Your task to perform on an android device: turn pop-ups on in chrome Image 0: 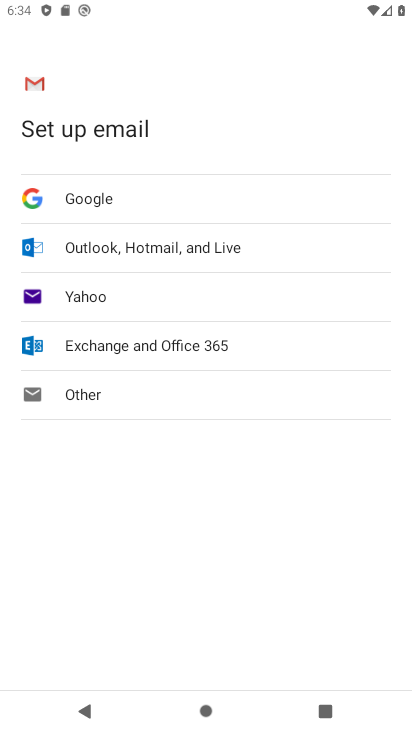
Step 0: press home button
Your task to perform on an android device: turn pop-ups on in chrome Image 1: 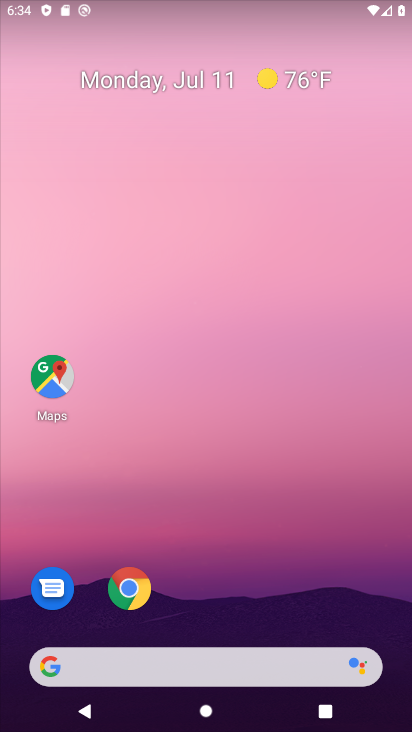
Step 1: click (131, 588)
Your task to perform on an android device: turn pop-ups on in chrome Image 2: 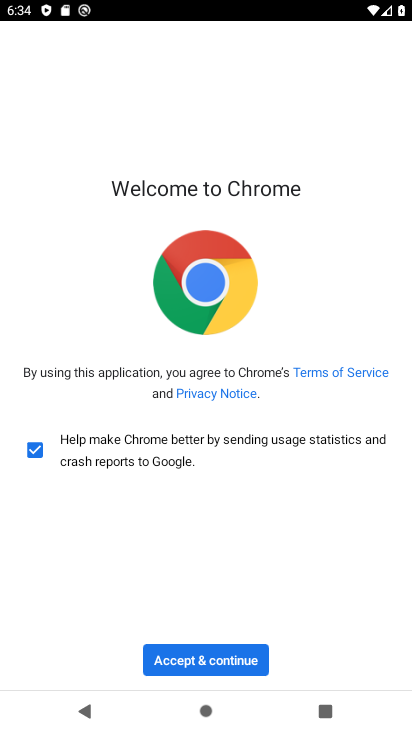
Step 2: click (202, 655)
Your task to perform on an android device: turn pop-ups on in chrome Image 3: 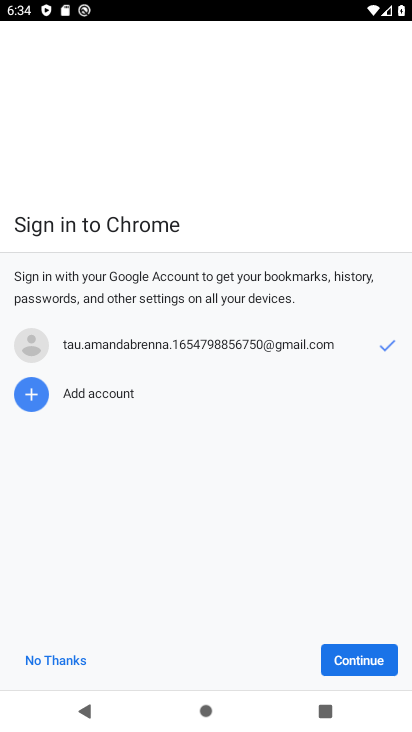
Step 3: click (342, 668)
Your task to perform on an android device: turn pop-ups on in chrome Image 4: 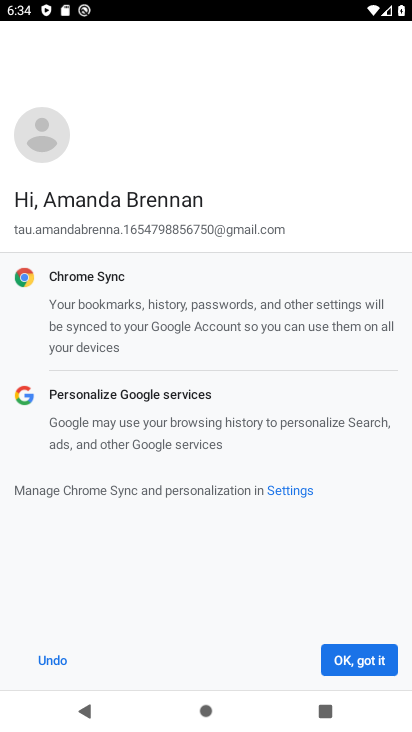
Step 4: click (342, 668)
Your task to perform on an android device: turn pop-ups on in chrome Image 5: 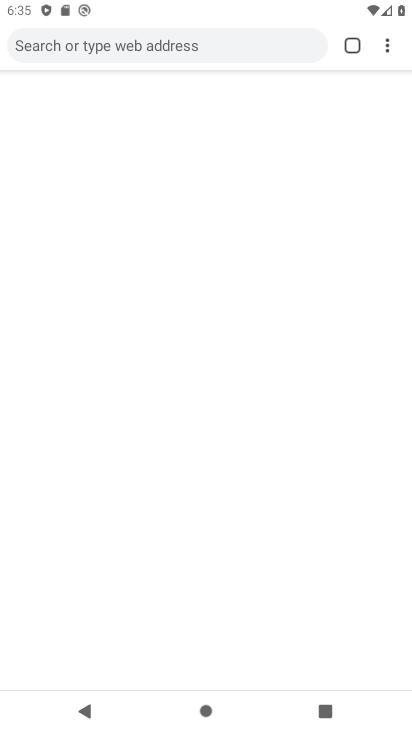
Step 5: click (387, 43)
Your task to perform on an android device: turn pop-ups on in chrome Image 6: 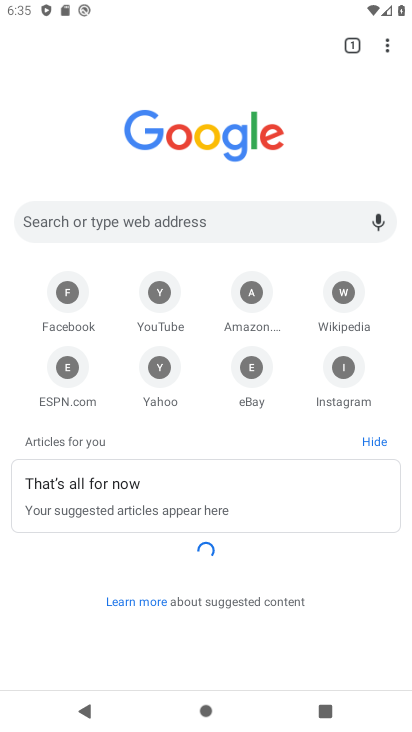
Step 6: click (388, 46)
Your task to perform on an android device: turn pop-ups on in chrome Image 7: 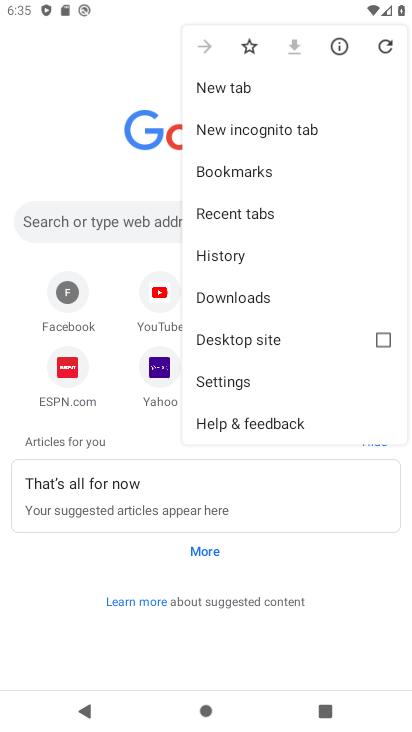
Step 7: click (233, 378)
Your task to perform on an android device: turn pop-ups on in chrome Image 8: 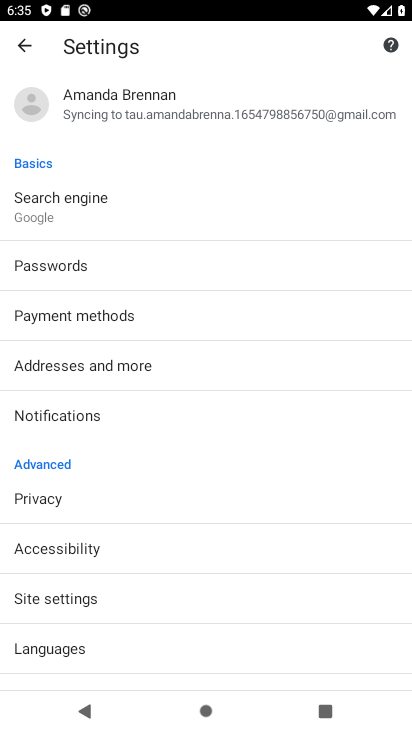
Step 8: click (84, 590)
Your task to perform on an android device: turn pop-ups on in chrome Image 9: 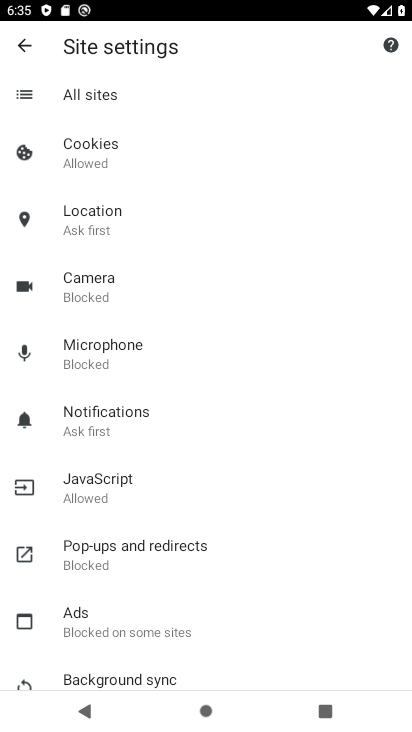
Step 9: click (102, 552)
Your task to perform on an android device: turn pop-ups on in chrome Image 10: 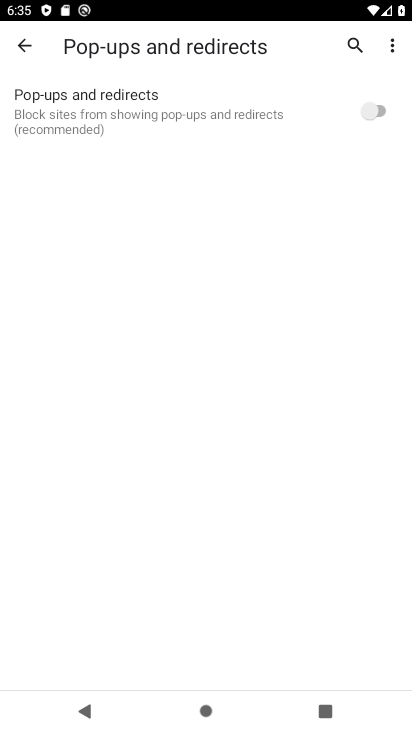
Step 10: click (369, 107)
Your task to perform on an android device: turn pop-ups on in chrome Image 11: 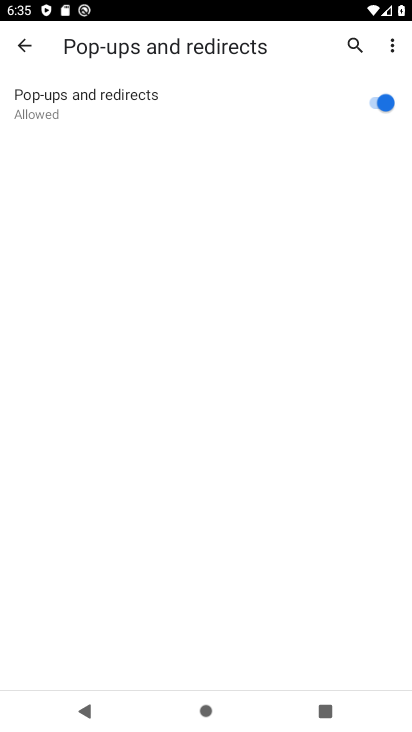
Step 11: task complete